Your task to perform on an android device: View the shopping cart on walmart.com. Add "macbook" to the cart on walmart.com, then select checkout. Image 0: 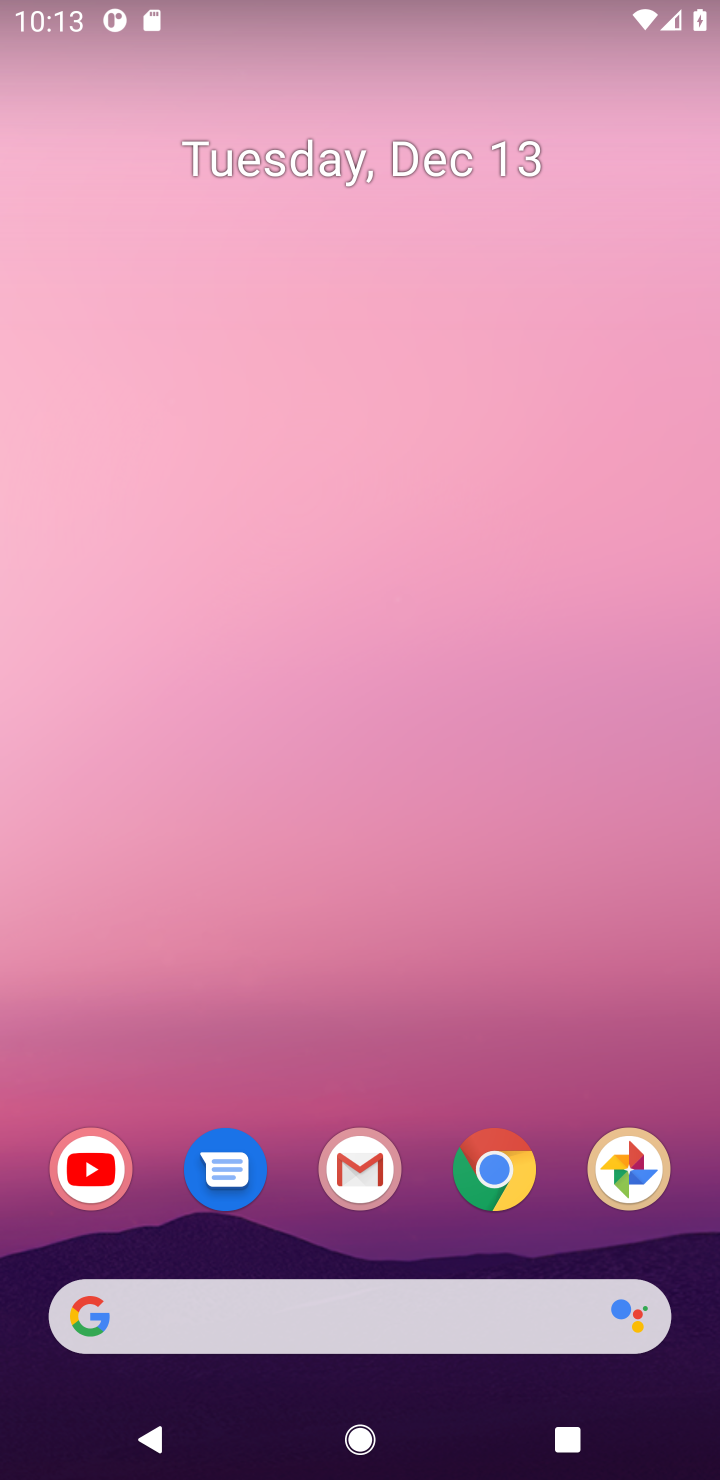
Step 0: click (455, 1300)
Your task to perform on an android device: View the shopping cart on walmart.com. Add "macbook" to the cart on walmart.com, then select checkout. Image 1: 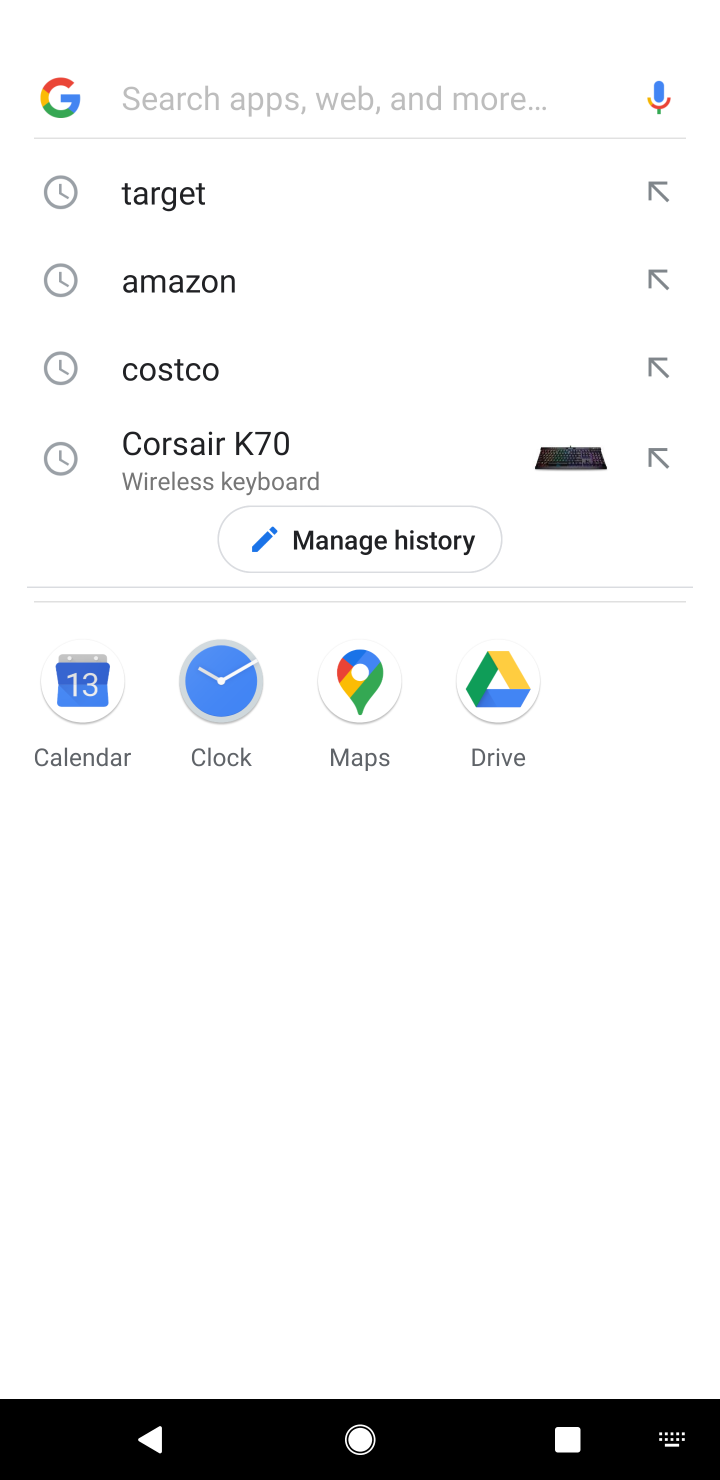
Step 1: type "walmart"
Your task to perform on an android device: View the shopping cart on walmart.com. Add "macbook" to the cart on walmart.com, then select checkout. Image 2: 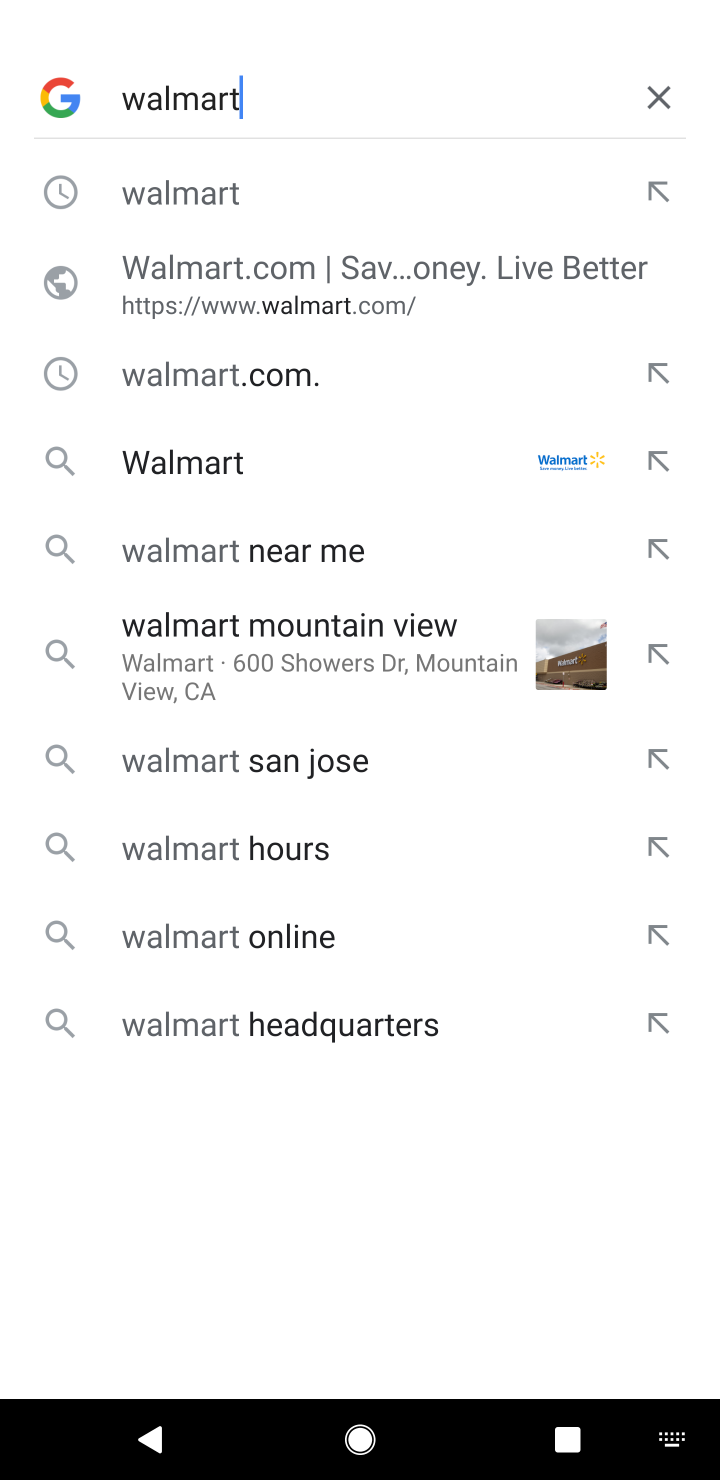
Step 2: click (196, 215)
Your task to perform on an android device: View the shopping cart on walmart.com. Add "macbook" to the cart on walmart.com, then select checkout. Image 3: 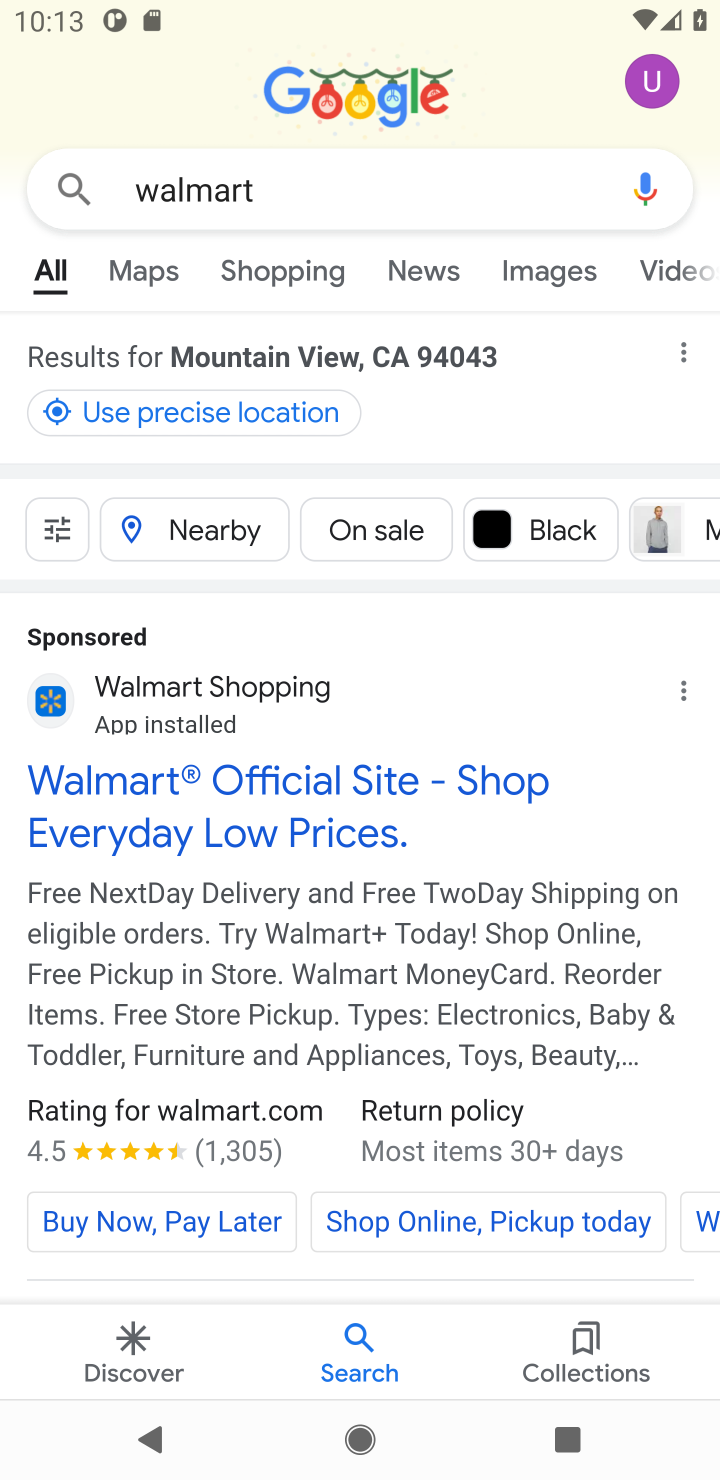
Step 3: click (145, 817)
Your task to perform on an android device: View the shopping cart on walmart.com. Add "macbook" to the cart on walmart.com, then select checkout. Image 4: 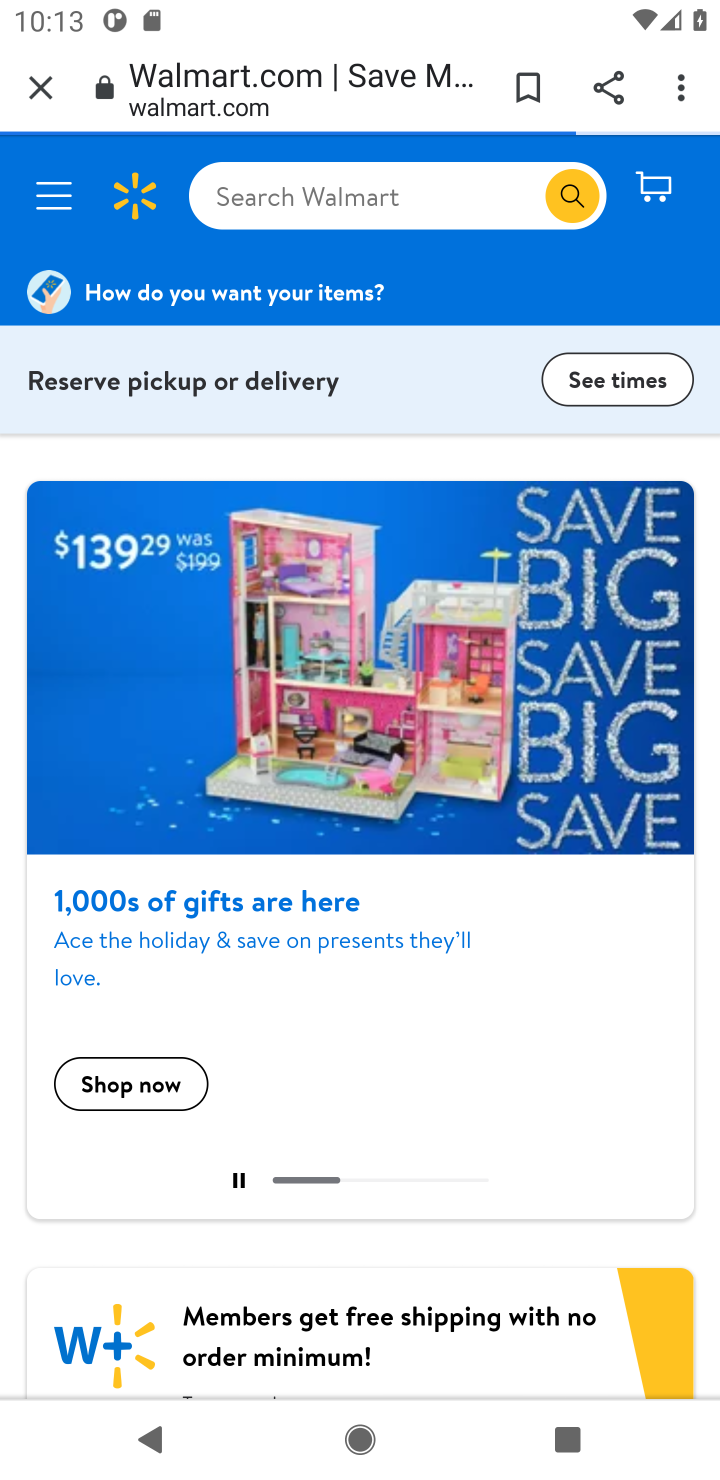
Step 4: click (250, 183)
Your task to perform on an android device: View the shopping cart on walmart.com. Add "macbook" to the cart on walmart.com, then select checkout. Image 5: 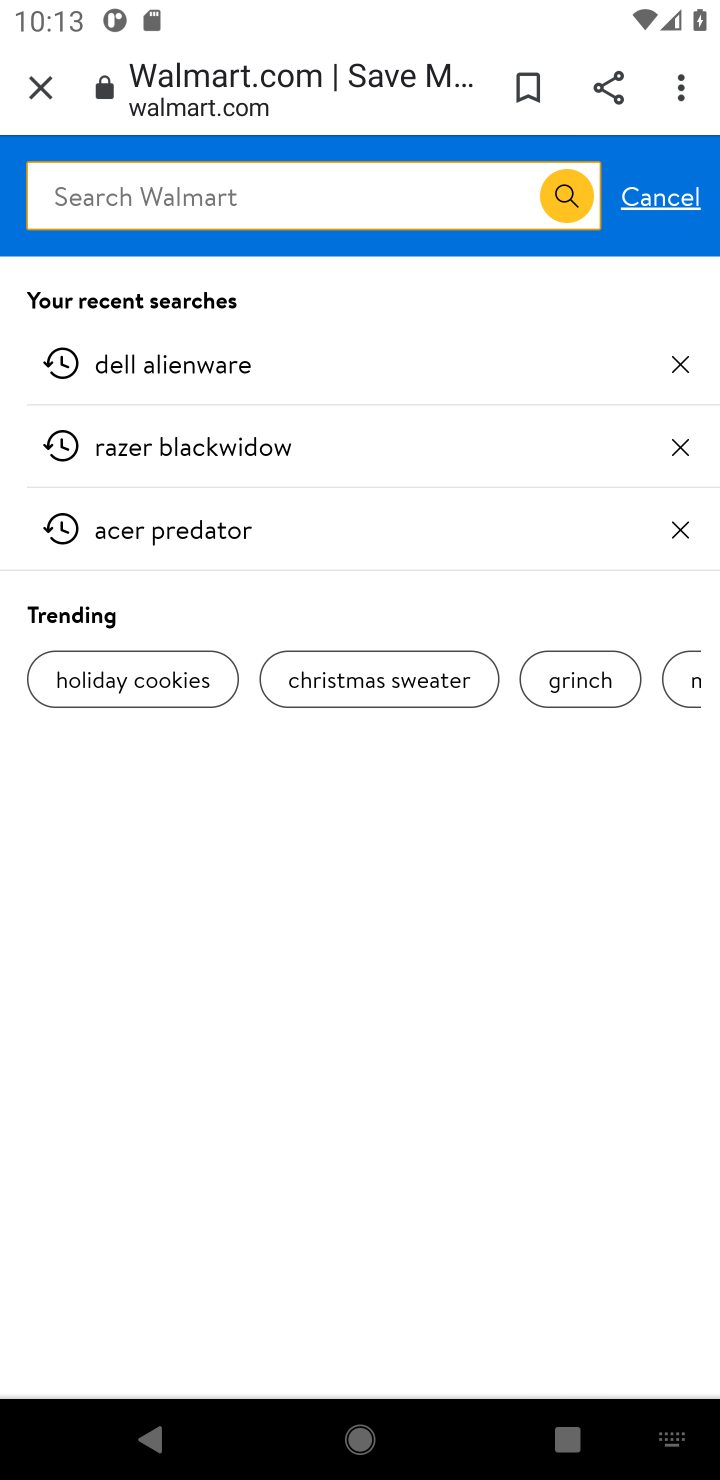
Step 5: type "macbook"
Your task to perform on an android device: View the shopping cart on walmart.com. Add "macbook" to the cart on walmart.com, then select checkout. Image 6: 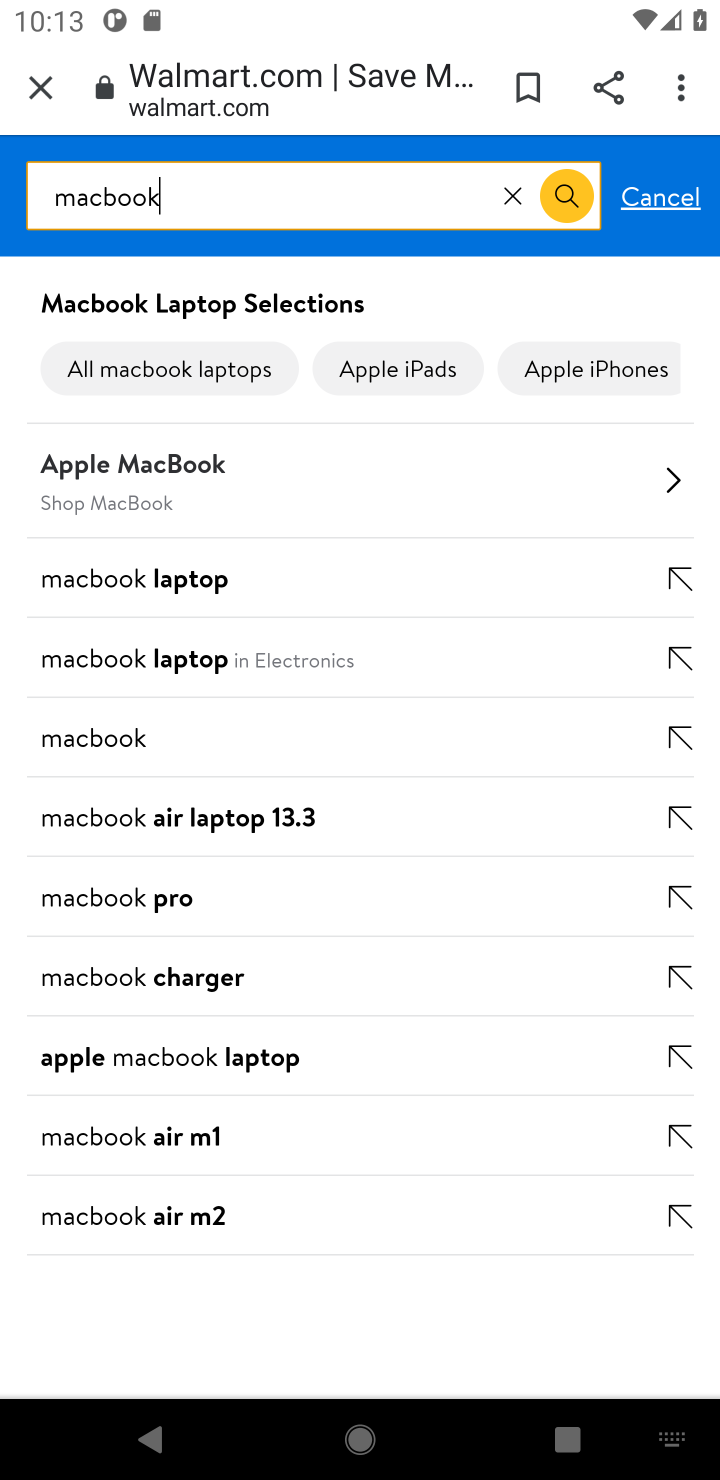
Step 6: click (185, 500)
Your task to perform on an android device: View the shopping cart on walmart.com. Add "macbook" to the cart on walmart.com, then select checkout. Image 7: 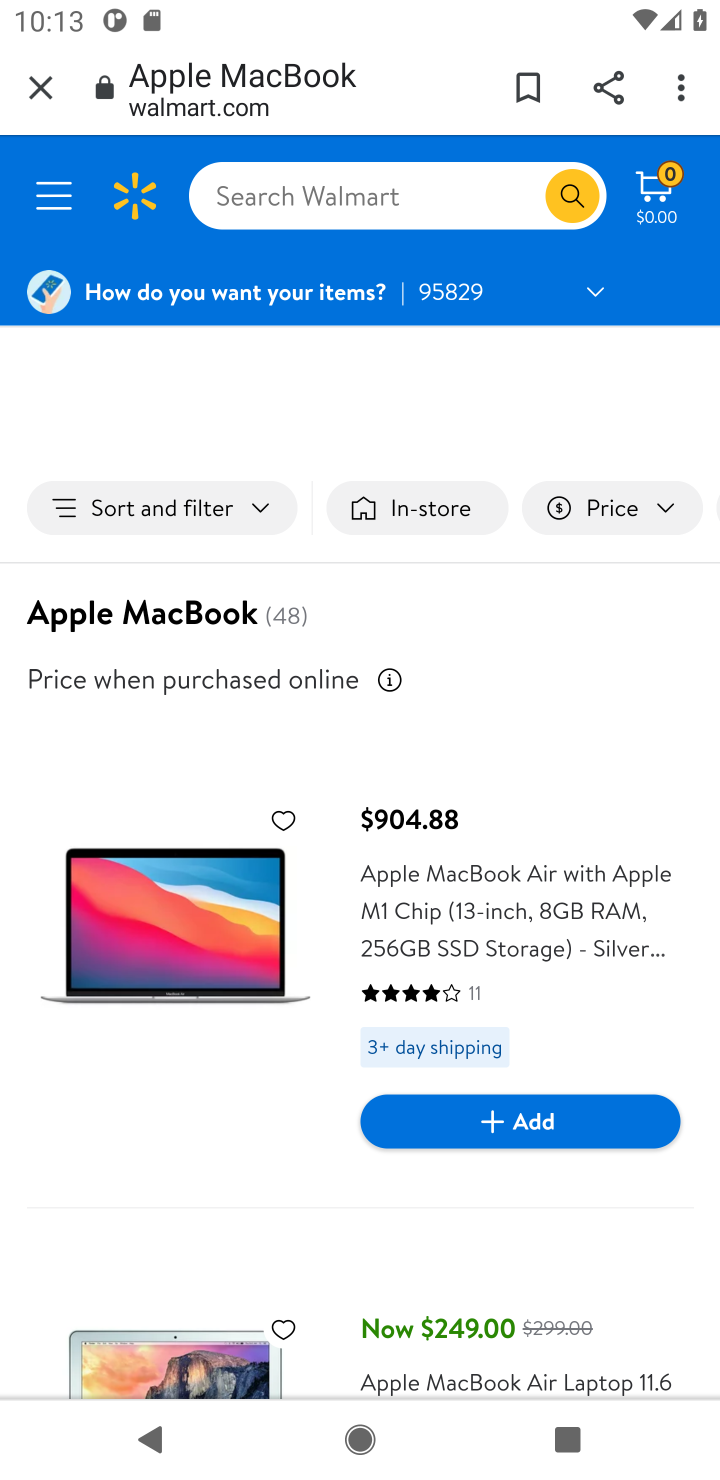
Step 7: click (516, 1134)
Your task to perform on an android device: View the shopping cart on walmart.com. Add "macbook" to the cart on walmart.com, then select checkout. Image 8: 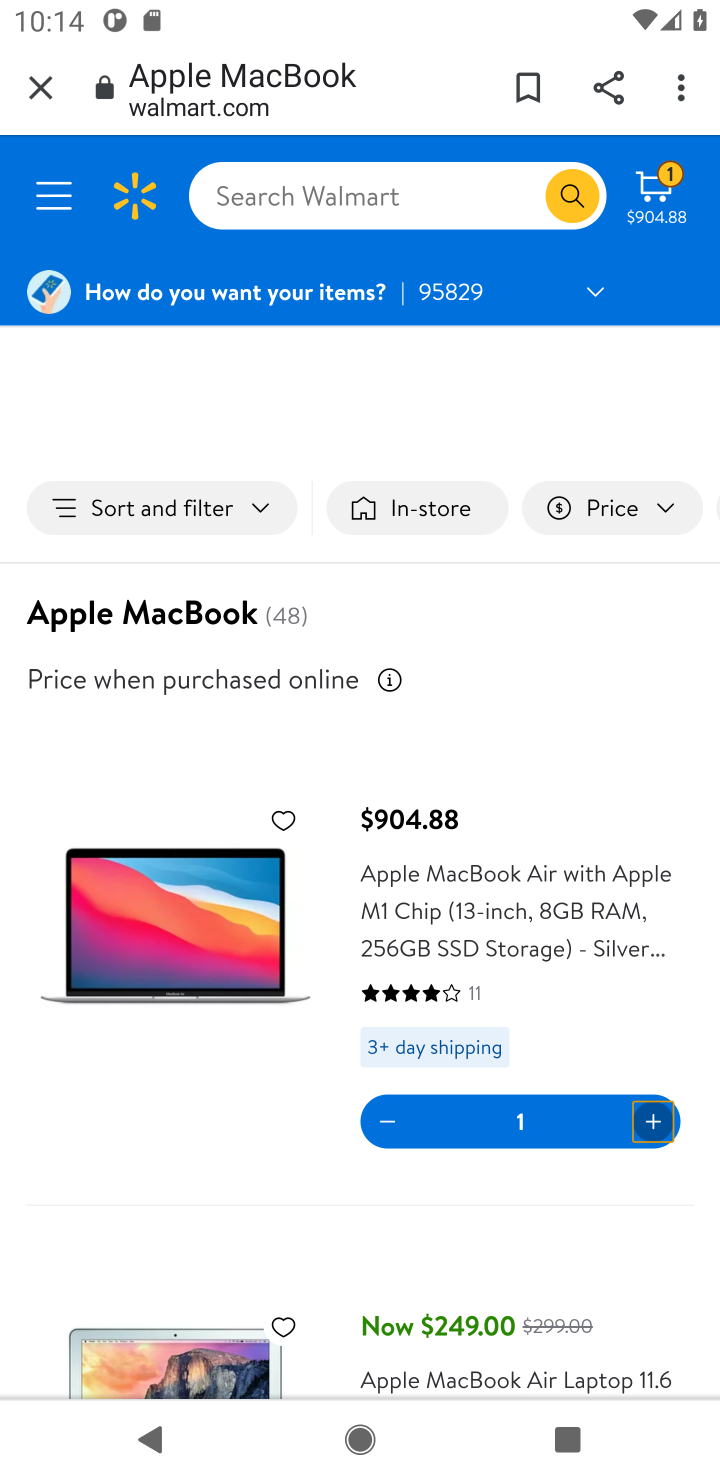
Step 8: task complete